Your task to perform on an android device: Open the web browser Image 0: 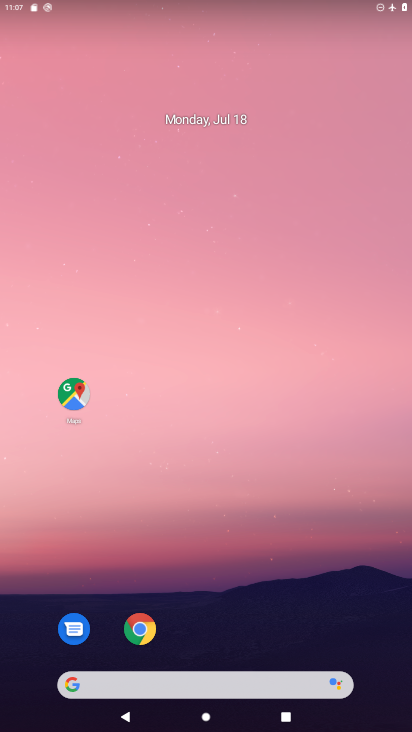
Step 0: drag from (275, 623) to (231, 21)
Your task to perform on an android device: Open the web browser Image 1: 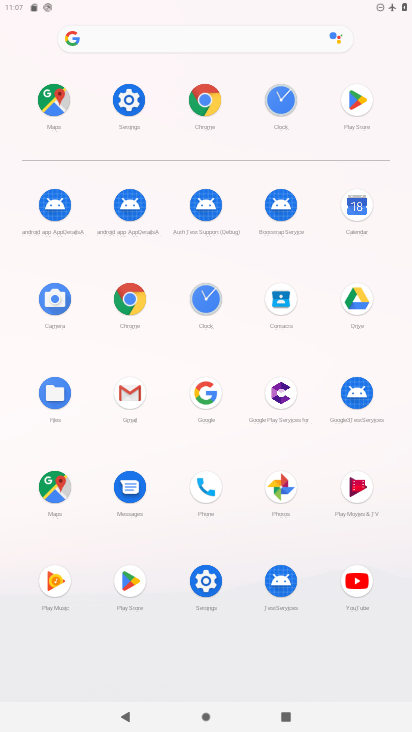
Step 1: click (218, 86)
Your task to perform on an android device: Open the web browser Image 2: 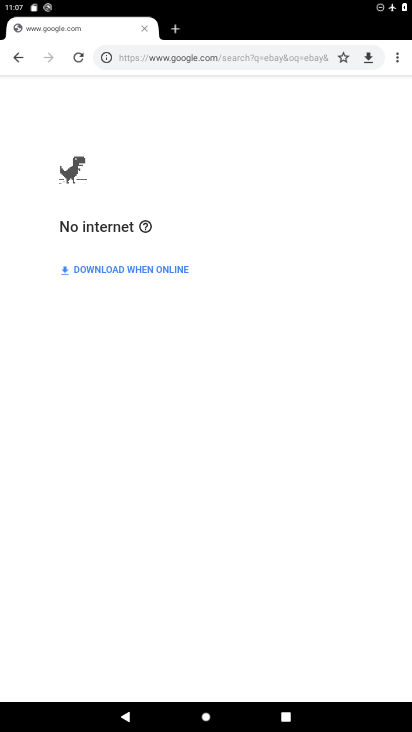
Step 2: task complete